Your task to perform on an android device: turn on wifi Image 0: 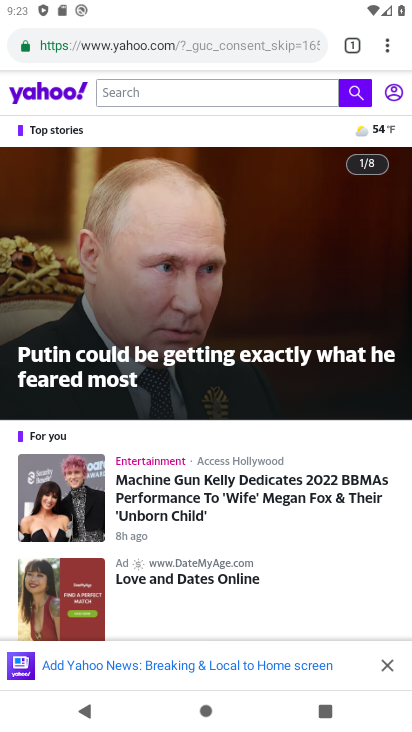
Step 0: press home button
Your task to perform on an android device: turn on wifi Image 1: 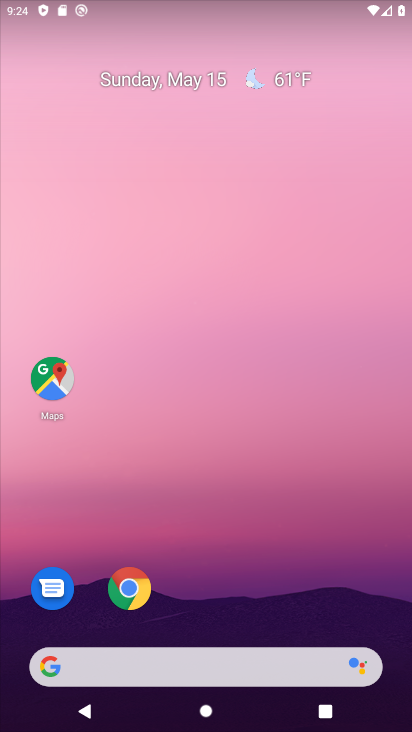
Step 1: drag from (202, 620) to (271, 8)
Your task to perform on an android device: turn on wifi Image 2: 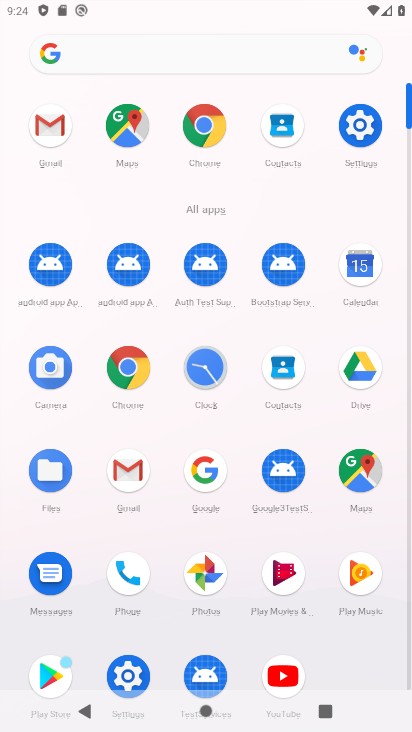
Step 2: click (367, 151)
Your task to perform on an android device: turn on wifi Image 3: 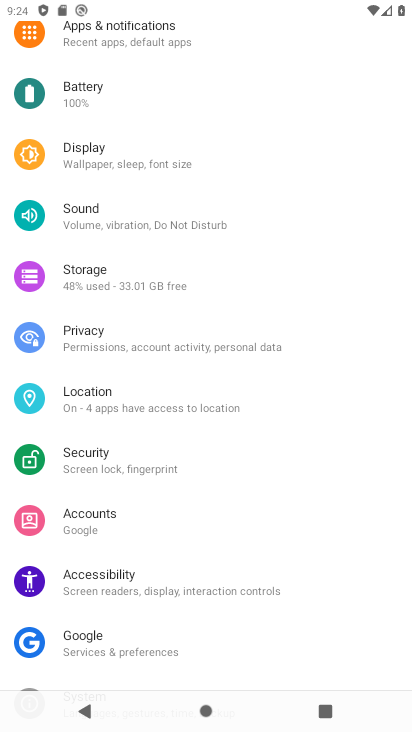
Step 3: drag from (205, 692) to (191, 729)
Your task to perform on an android device: turn on wifi Image 4: 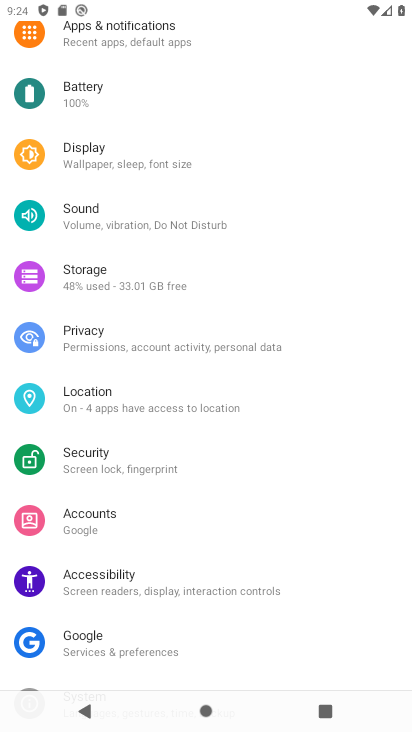
Step 4: drag from (175, 205) to (161, 552)
Your task to perform on an android device: turn on wifi Image 5: 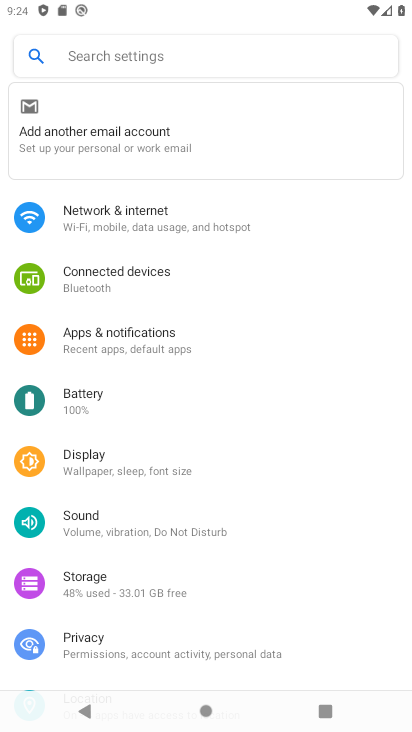
Step 5: click (124, 223)
Your task to perform on an android device: turn on wifi Image 6: 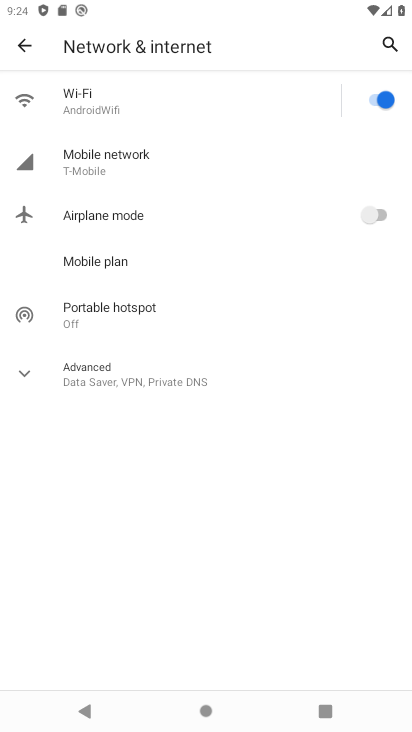
Step 6: task complete